Your task to perform on an android device: Show me the alarms in the clock app Image 0: 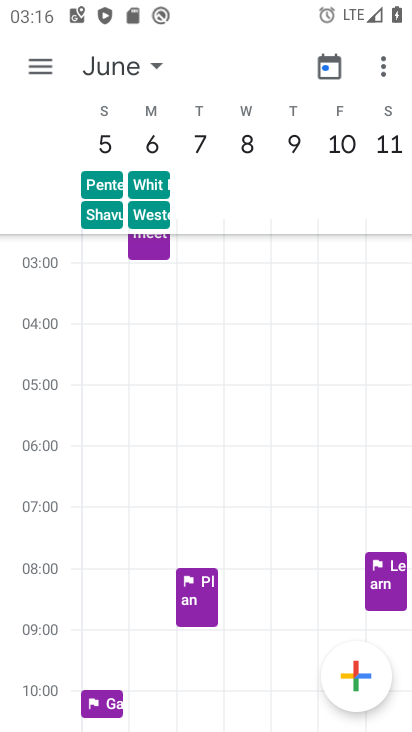
Step 0: press home button
Your task to perform on an android device: Show me the alarms in the clock app Image 1: 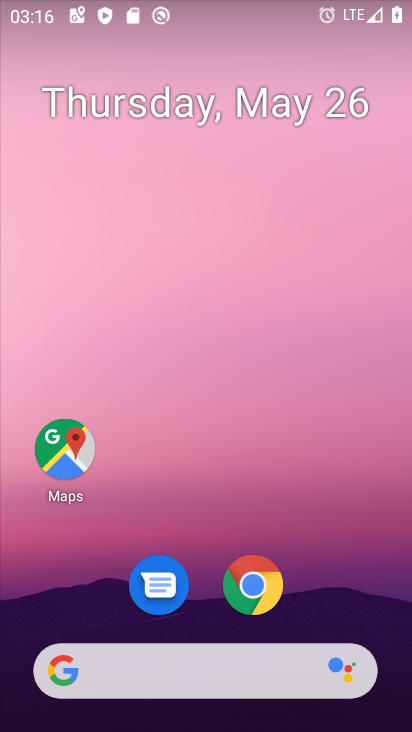
Step 1: drag from (249, 466) to (269, 35)
Your task to perform on an android device: Show me the alarms in the clock app Image 2: 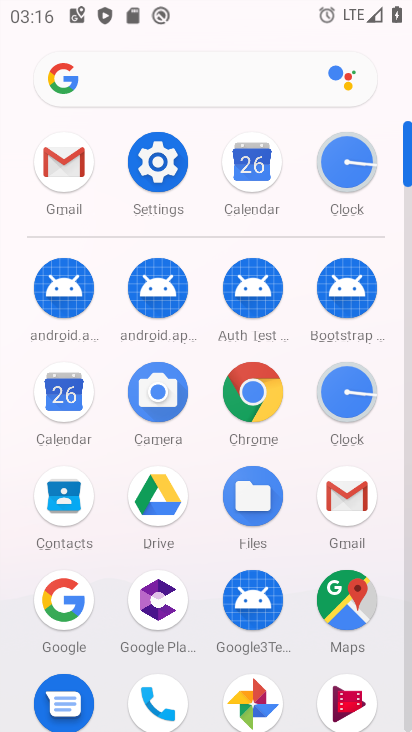
Step 2: click (360, 150)
Your task to perform on an android device: Show me the alarms in the clock app Image 3: 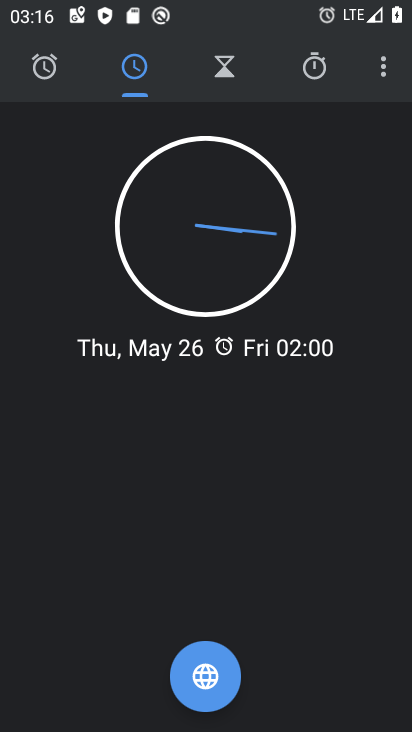
Step 3: click (48, 70)
Your task to perform on an android device: Show me the alarms in the clock app Image 4: 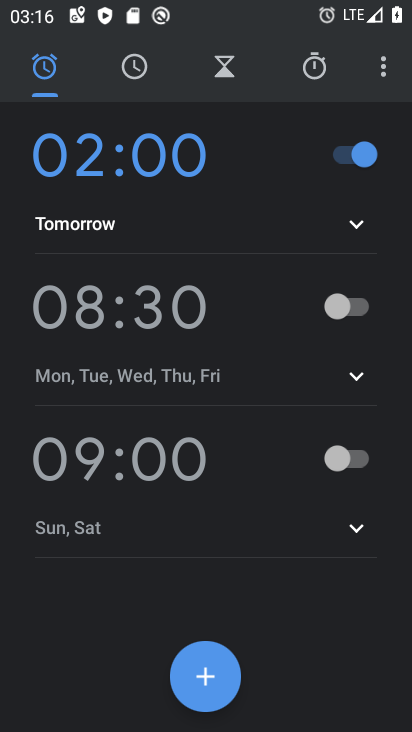
Step 4: task complete